Your task to perform on an android device: Open calendar and show me the second week of next month Image 0: 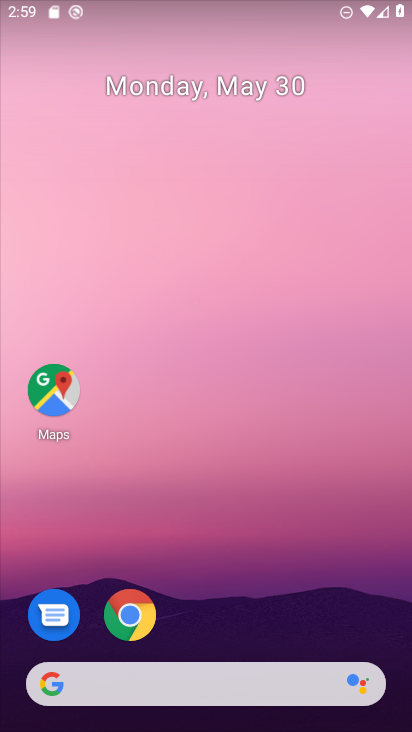
Step 0: drag from (182, 599) to (221, 285)
Your task to perform on an android device: Open calendar and show me the second week of next month Image 1: 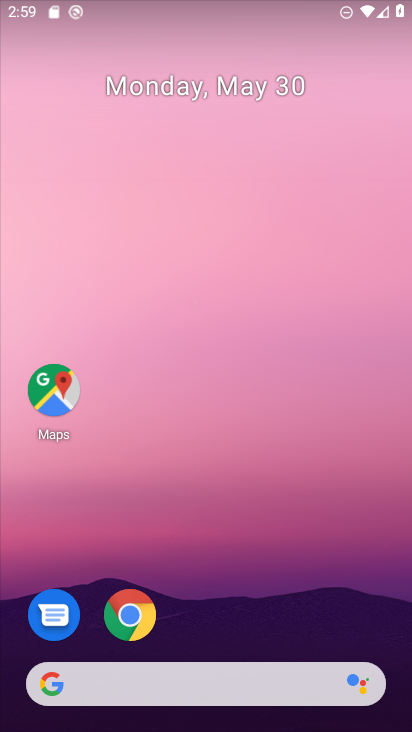
Step 1: drag from (258, 598) to (300, 214)
Your task to perform on an android device: Open calendar and show me the second week of next month Image 2: 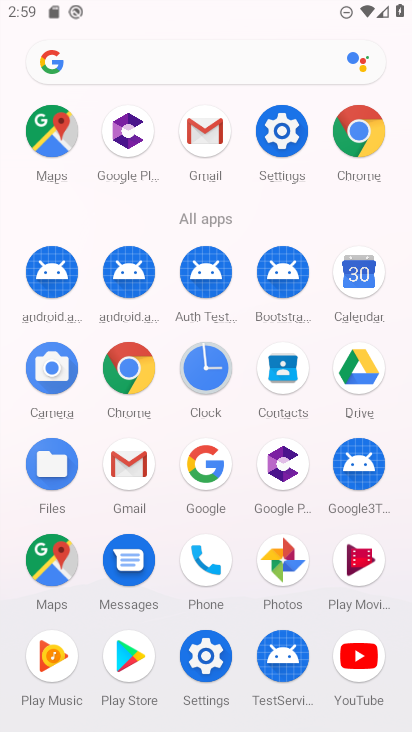
Step 2: click (365, 266)
Your task to perform on an android device: Open calendar and show me the second week of next month Image 3: 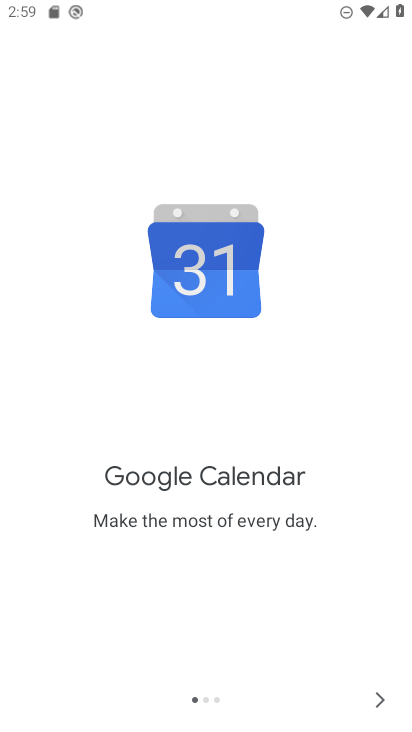
Step 3: click (387, 698)
Your task to perform on an android device: Open calendar and show me the second week of next month Image 4: 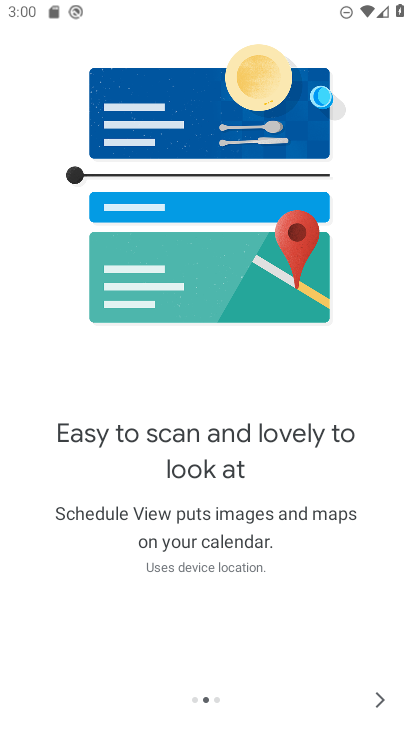
Step 4: click (387, 698)
Your task to perform on an android device: Open calendar and show me the second week of next month Image 5: 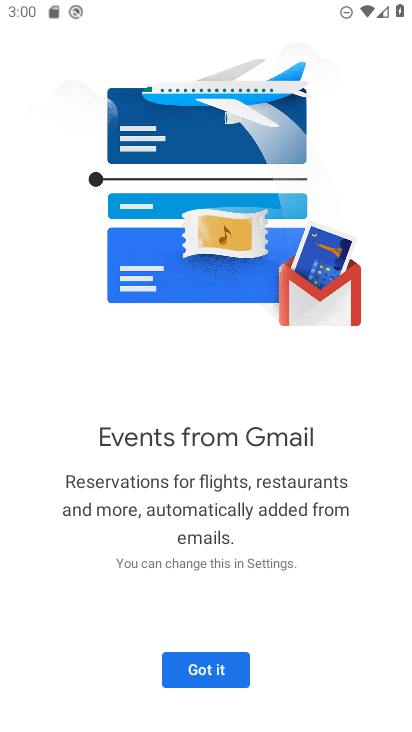
Step 5: click (215, 675)
Your task to perform on an android device: Open calendar and show me the second week of next month Image 6: 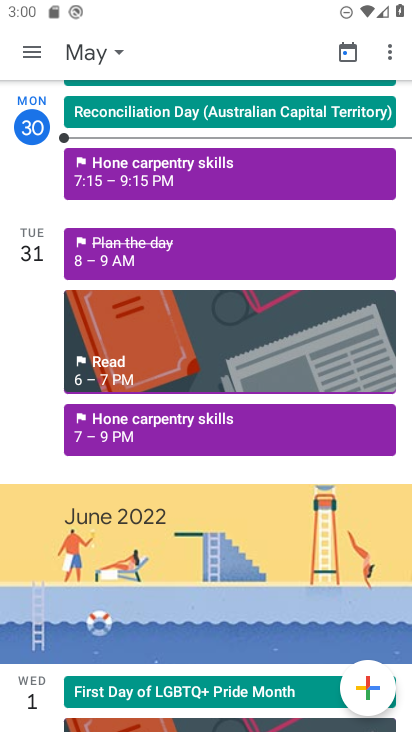
Step 6: click (33, 57)
Your task to perform on an android device: Open calendar and show me the second week of next month Image 7: 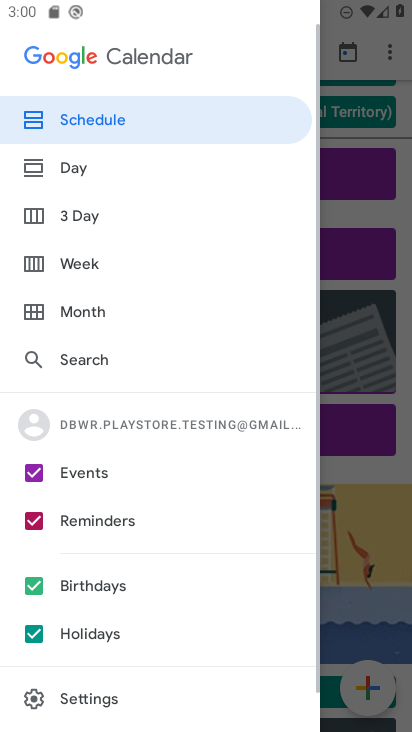
Step 7: click (105, 259)
Your task to perform on an android device: Open calendar and show me the second week of next month Image 8: 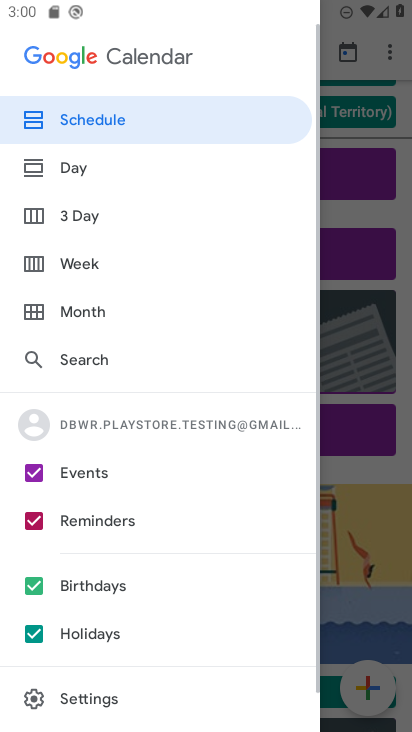
Step 8: click (99, 260)
Your task to perform on an android device: Open calendar and show me the second week of next month Image 9: 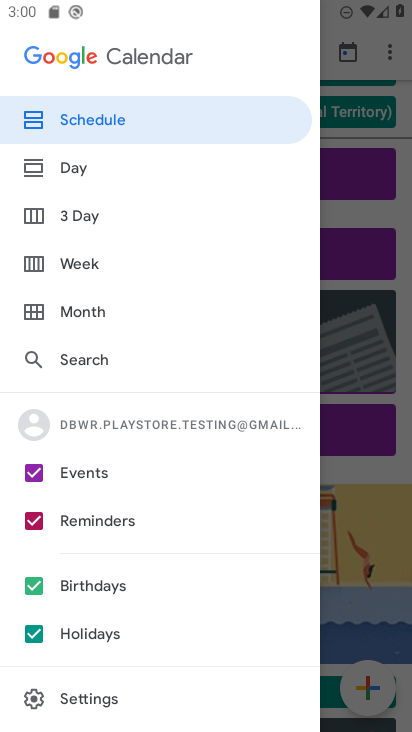
Step 9: click (99, 260)
Your task to perform on an android device: Open calendar and show me the second week of next month Image 10: 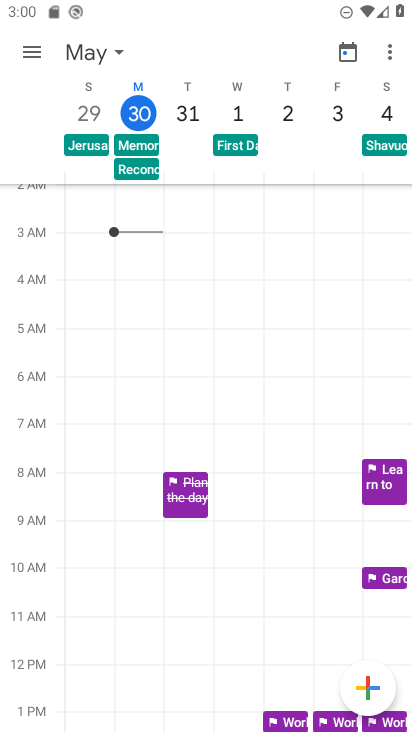
Step 10: click (113, 47)
Your task to perform on an android device: Open calendar and show me the second week of next month Image 11: 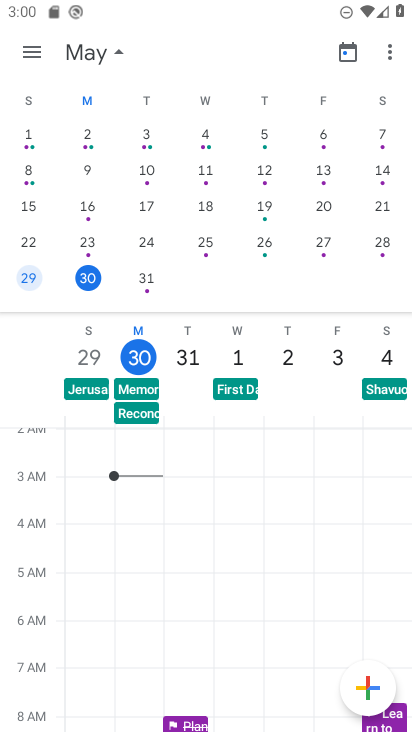
Step 11: drag from (299, 201) to (24, 180)
Your task to perform on an android device: Open calendar and show me the second week of next month Image 12: 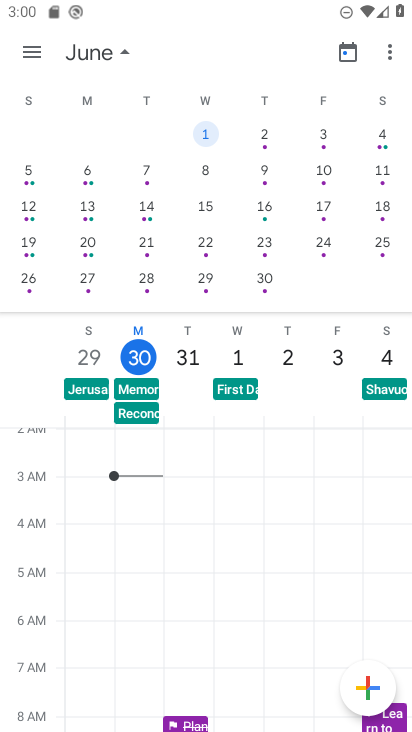
Step 12: click (156, 205)
Your task to perform on an android device: Open calendar and show me the second week of next month Image 13: 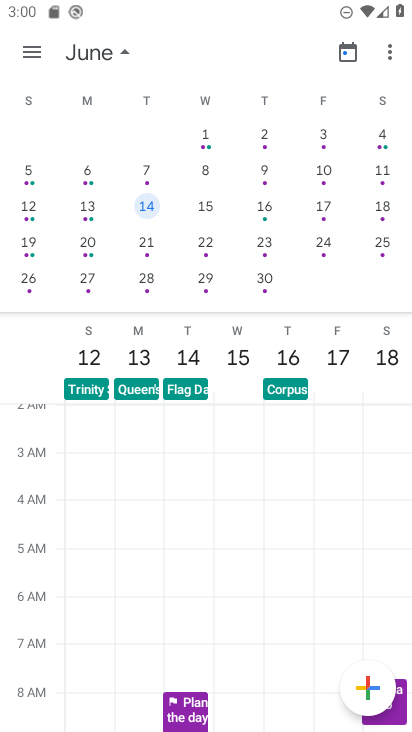
Step 13: task complete